Your task to perform on an android device: Is it going to rain this weekend? Image 0: 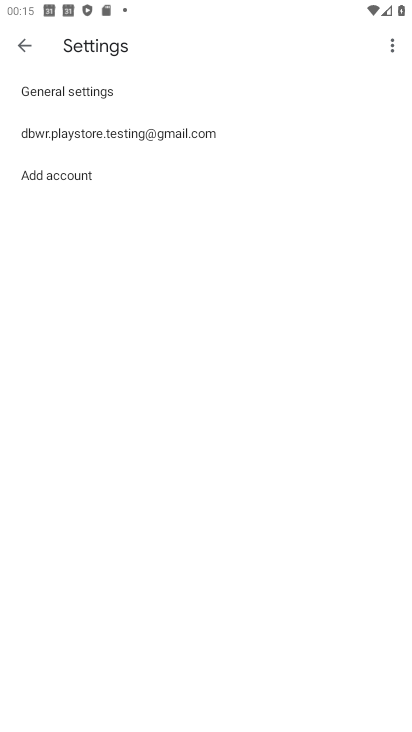
Step 0: press home button
Your task to perform on an android device: Is it going to rain this weekend? Image 1: 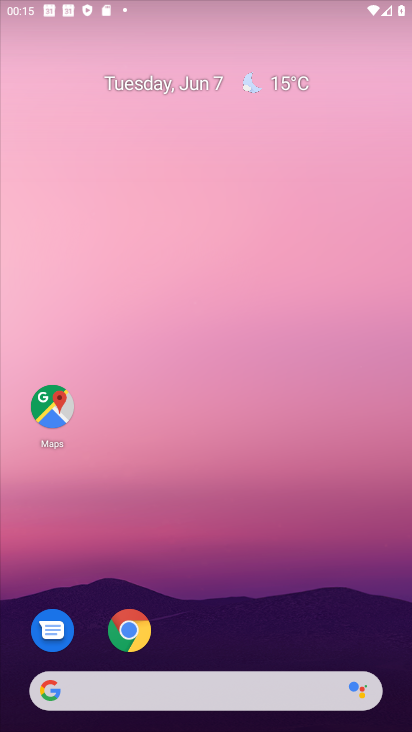
Step 1: drag from (361, 621) to (363, 140)
Your task to perform on an android device: Is it going to rain this weekend? Image 2: 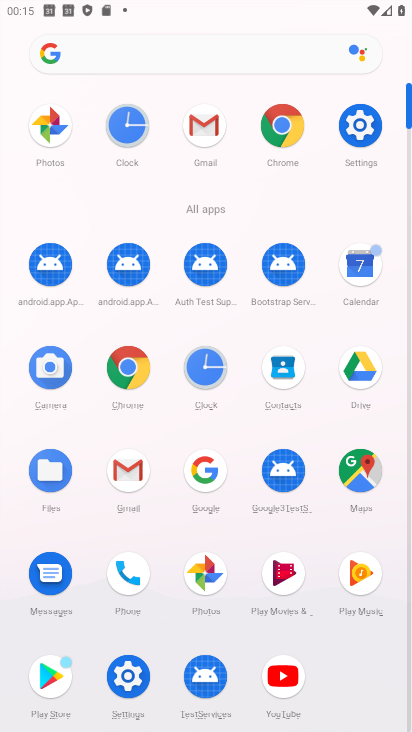
Step 2: click (126, 362)
Your task to perform on an android device: Is it going to rain this weekend? Image 3: 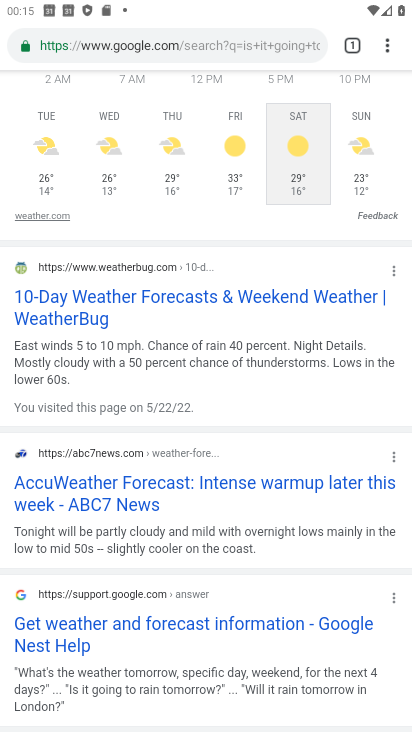
Step 3: click (217, 42)
Your task to perform on an android device: Is it going to rain this weekend? Image 4: 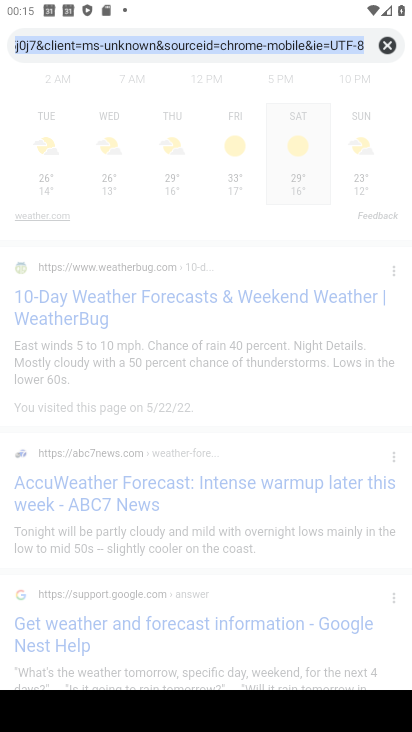
Step 4: click (383, 49)
Your task to perform on an android device: Is it going to rain this weekend? Image 5: 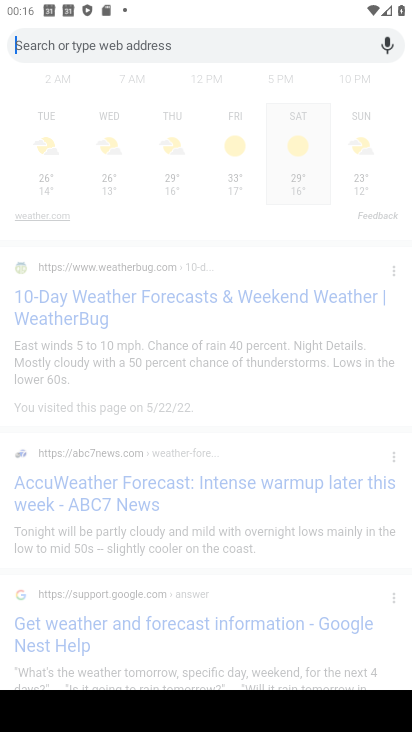
Step 5: type "is it going to rain this weekend "
Your task to perform on an android device: Is it going to rain this weekend? Image 6: 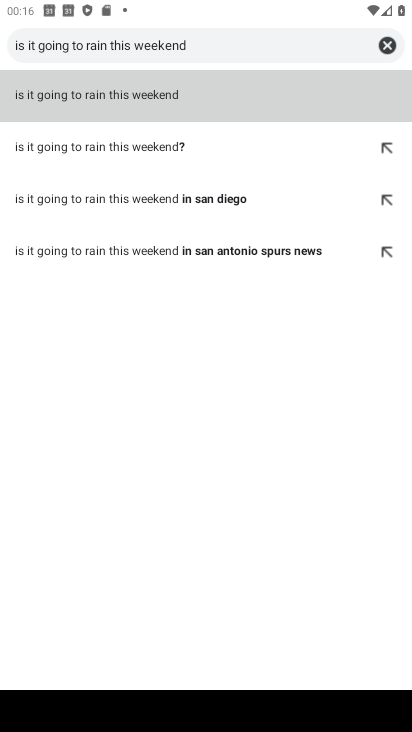
Step 6: click (165, 85)
Your task to perform on an android device: Is it going to rain this weekend? Image 7: 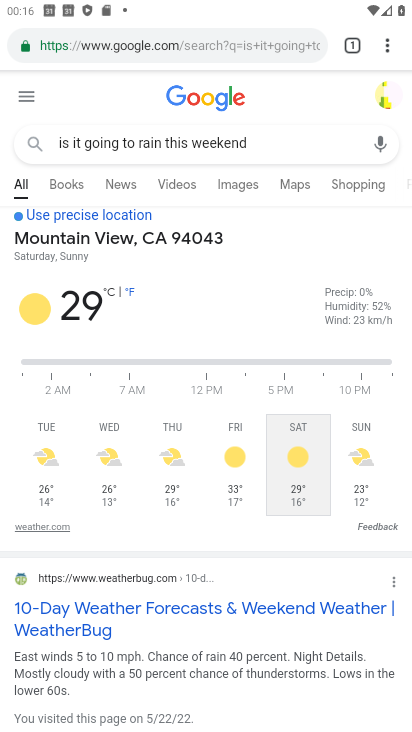
Step 7: task complete